Your task to perform on an android device: Search for a cheap bike on Walmart Image 0: 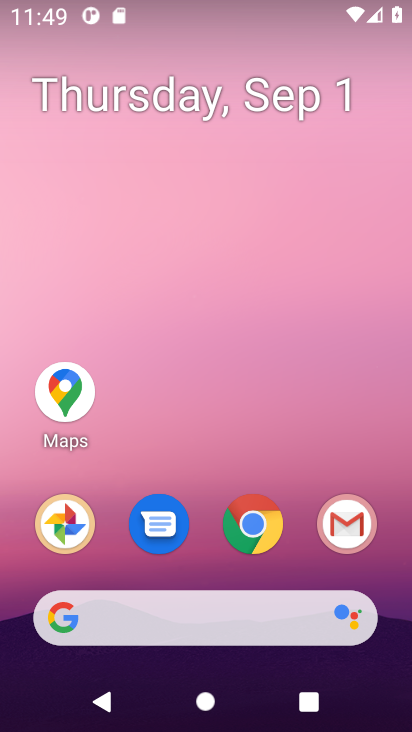
Step 0: click (271, 615)
Your task to perform on an android device: Search for a cheap bike on Walmart Image 1: 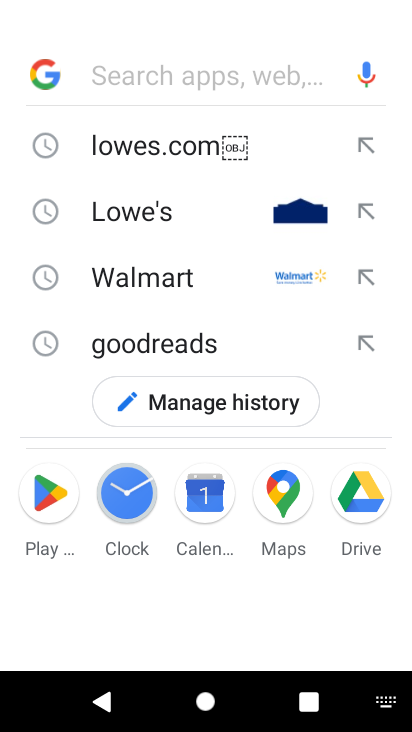
Step 1: click (176, 278)
Your task to perform on an android device: Search for a cheap bike on Walmart Image 2: 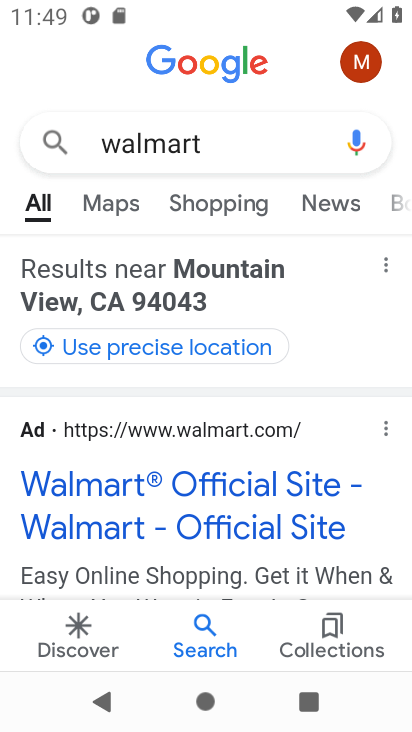
Step 2: click (215, 493)
Your task to perform on an android device: Search for a cheap bike on Walmart Image 3: 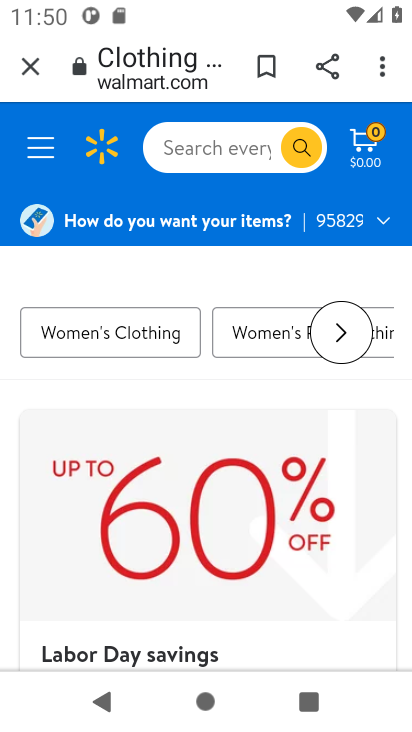
Step 3: click (228, 142)
Your task to perform on an android device: Search for a cheap bike on Walmart Image 4: 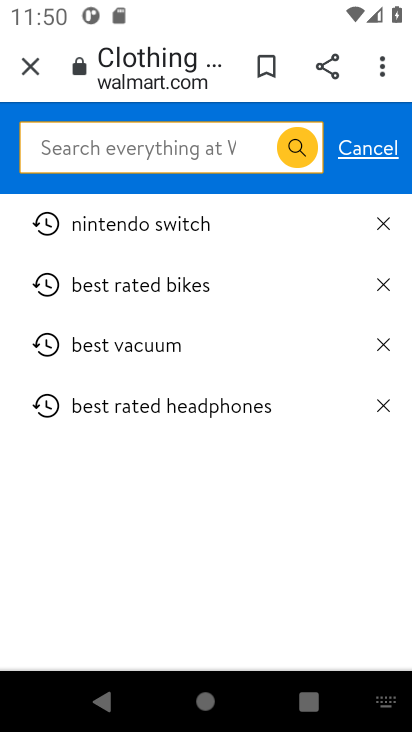
Step 4: type "cheap bike"
Your task to perform on an android device: Search for a cheap bike on Walmart Image 5: 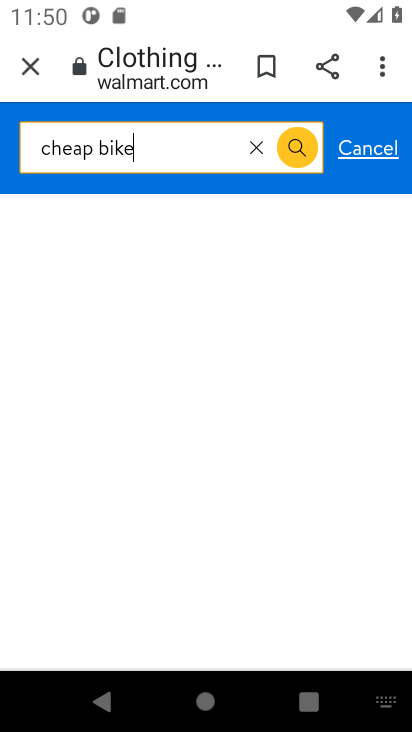
Step 5: press enter
Your task to perform on an android device: Search for a cheap bike on Walmart Image 6: 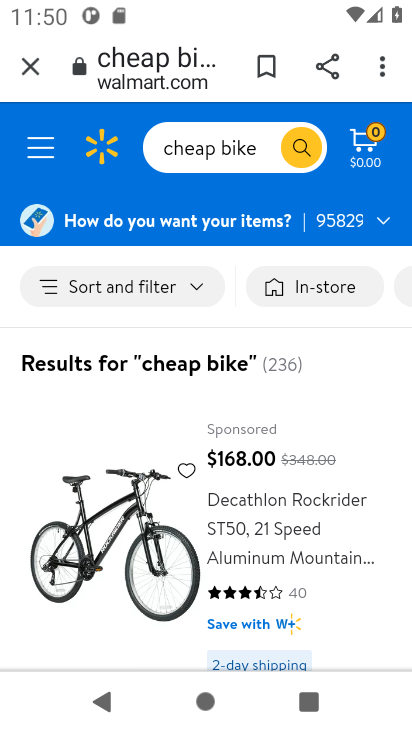
Step 6: task complete